Your task to perform on an android device: turn off picture-in-picture Image 0: 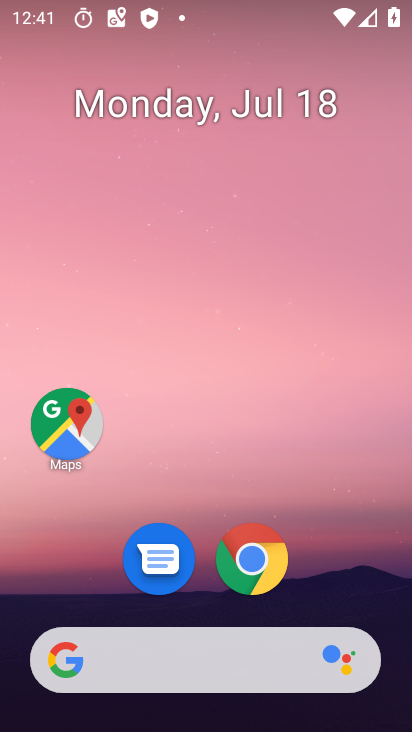
Step 0: drag from (193, 601) to (271, 7)
Your task to perform on an android device: turn off picture-in-picture Image 1: 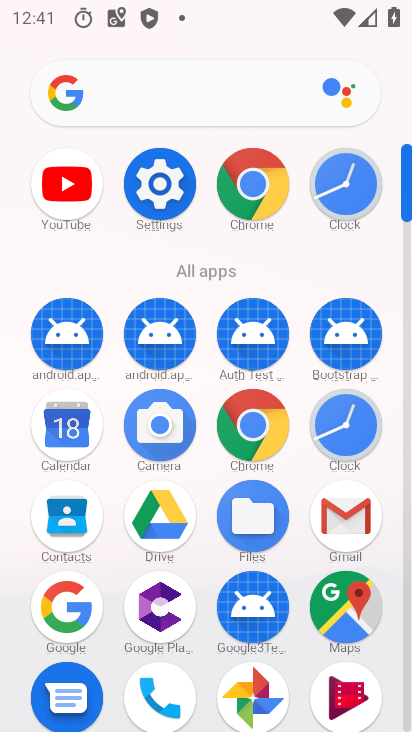
Step 1: click (174, 180)
Your task to perform on an android device: turn off picture-in-picture Image 2: 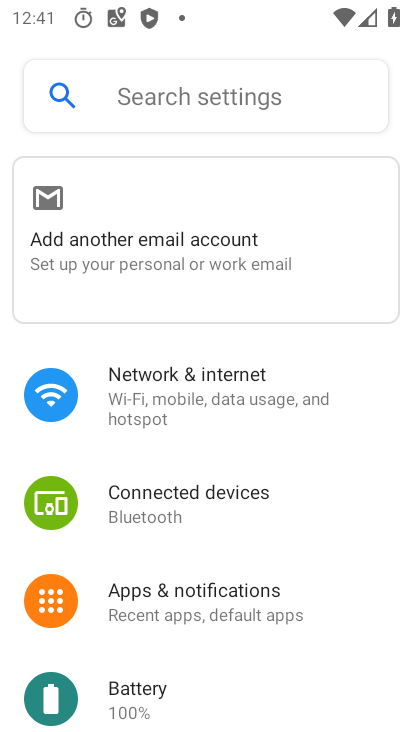
Step 2: drag from (233, 652) to (270, 448)
Your task to perform on an android device: turn off picture-in-picture Image 3: 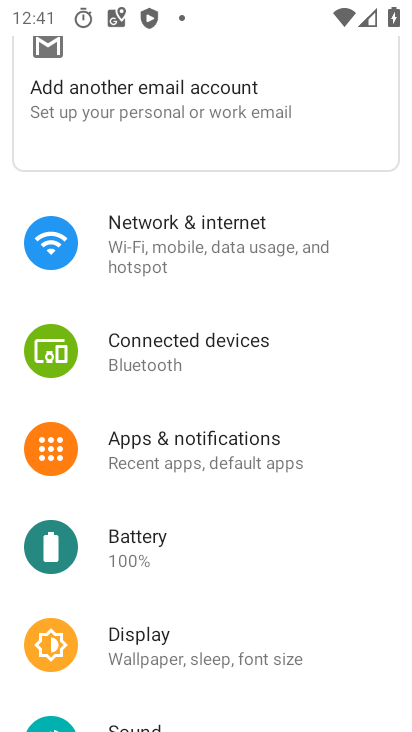
Step 3: click (233, 456)
Your task to perform on an android device: turn off picture-in-picture Image 4: 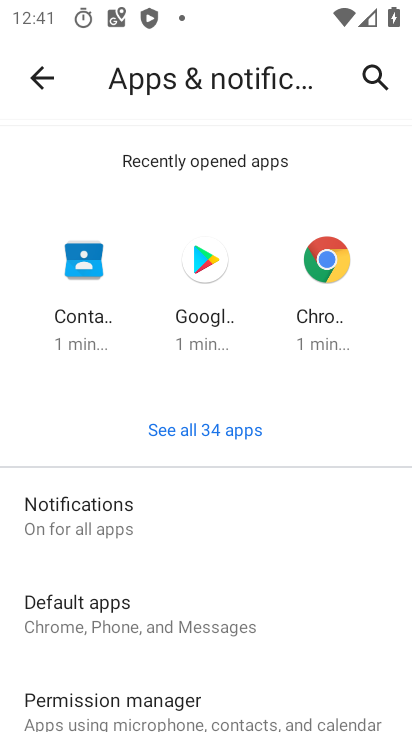
Step 4: drag from (205, 688) to (224, 395)
Your task to perform on an android device: turn off picture-in-picture Image 5: 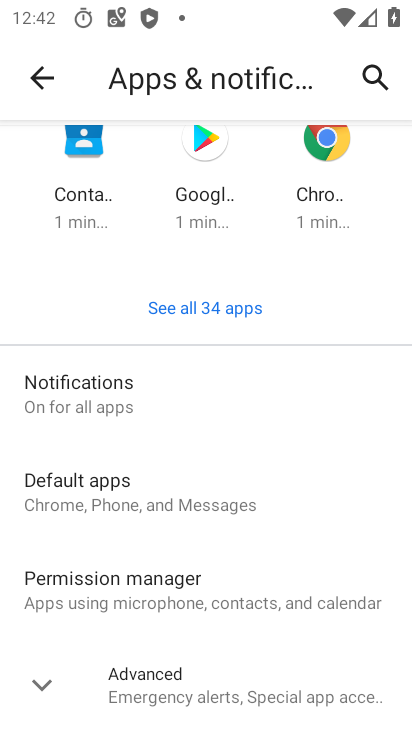
Step 5: click (126, 388)
Your task to perform on an android device: turn off picture-in-picture Image 6: 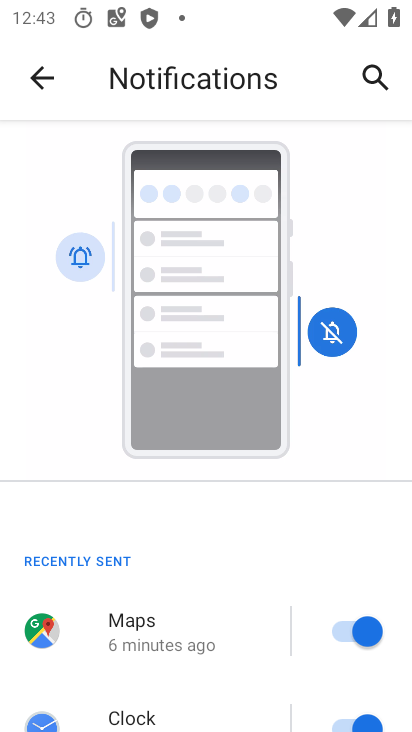
Step 6: drag from (210, 662) to (229, 46)
Your task to perform on an android device: turn off picture-in-picture Image 7: 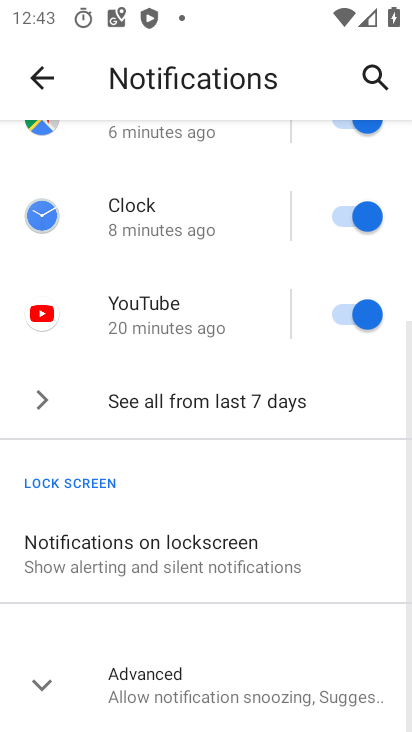
Step 7: drag from (201, 575) to (230, 40)
Your task to perform on an android device: turn off picture-in-picture Image 8: 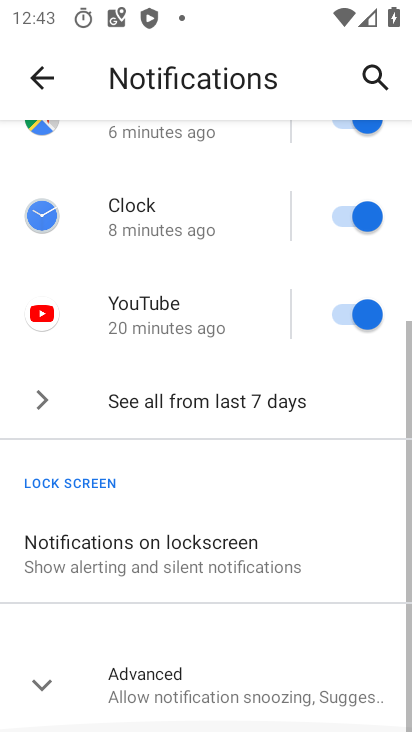
Step 8: click (188, 695)
Your task to perform on an android device: turn off picture-in-picture Image 9: 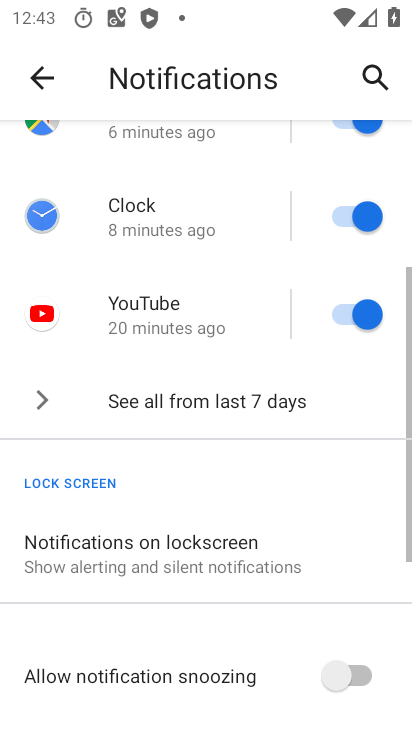
Step 9: drag from (197, 670) to (262, 47)
Your task to perform on an android device: turn off picture-in-picture Image 10: 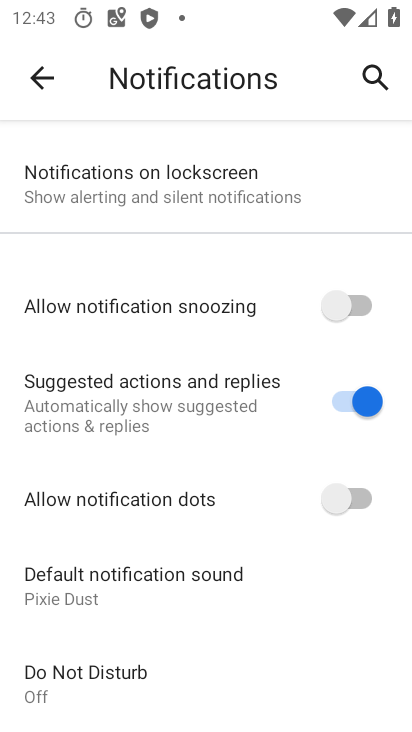
Step 10: drag from (218, 295) to (213, 114)
Your task to perform on an android device: turn off picture-in-picture Image 11: 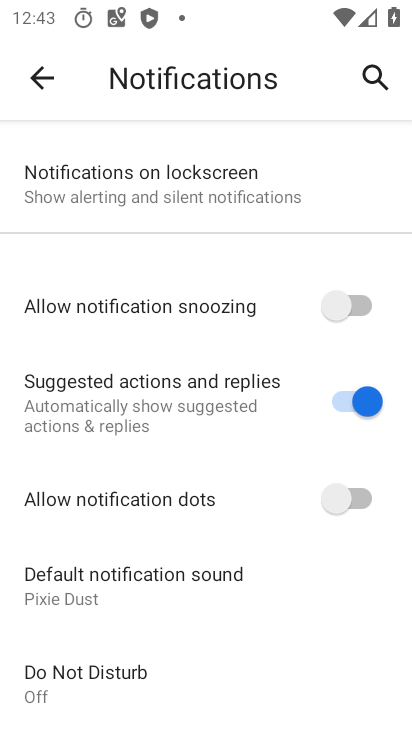
Step 11: drag from (177, 367) to (219, 56)
Your task to perform on an android device: turn off picture-in-picture Image 12: 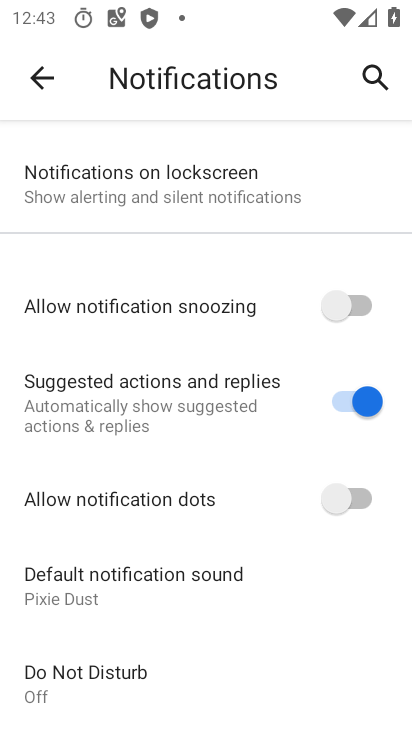
Step 12: click (36, 53)
Your task to perform on an android device: turn off picture-in-picture Image 13: 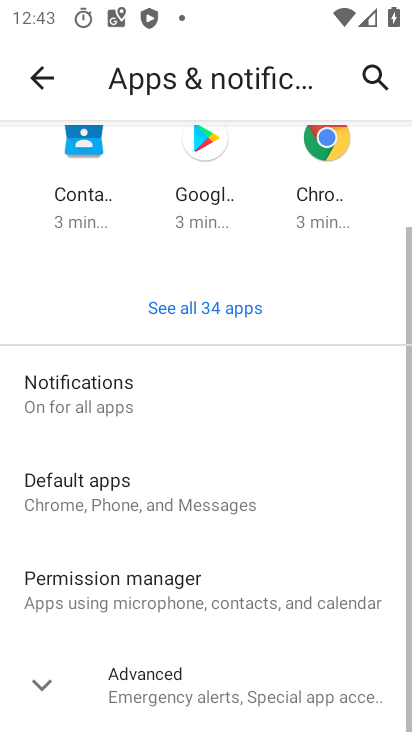
Step 13: drag from (167, 617) to (318, 32)
Your task to perform on an android device: turn off picture-in-picture Image 14: 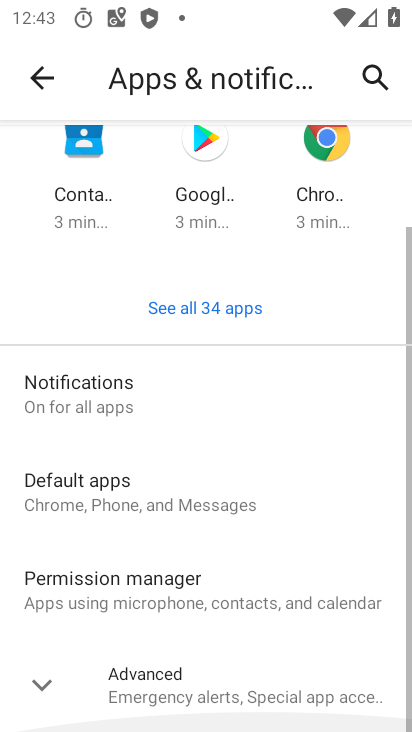
Step 14: click (169, 687)
Your task to perform on an android device: turn off picture-in-picture Image 15: 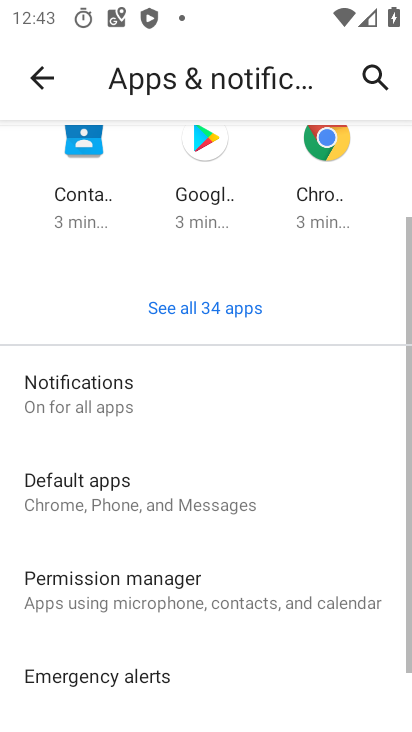
Step 15: drag from (172, 667) to (236, 63)
Your task to perform on an android device: turn off picture-in-picture Image 16: 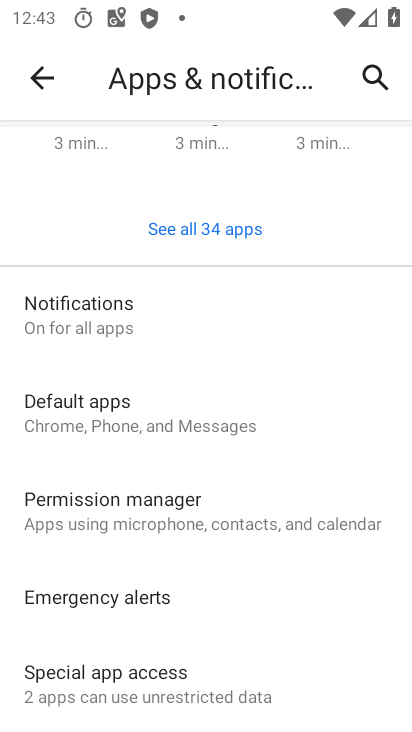
Step 16: click (72, 662)
Your task to perform on an android device: turn off picture-in-picture Image 17: 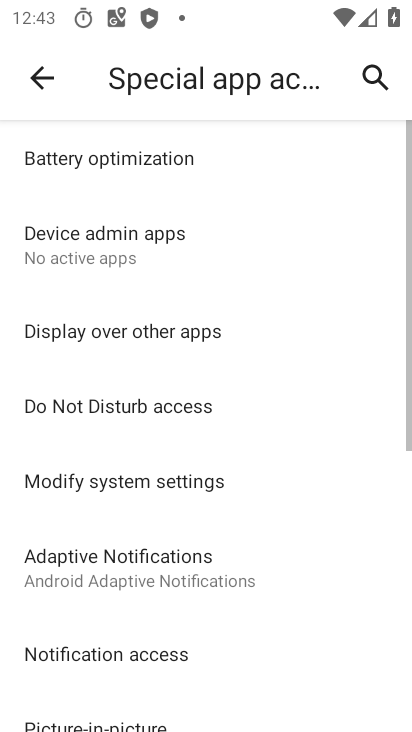
Step 17: drag from (100, 631) to (203, 94)
Your task to perform on an android device: turn off picture-in-picture Image 18: 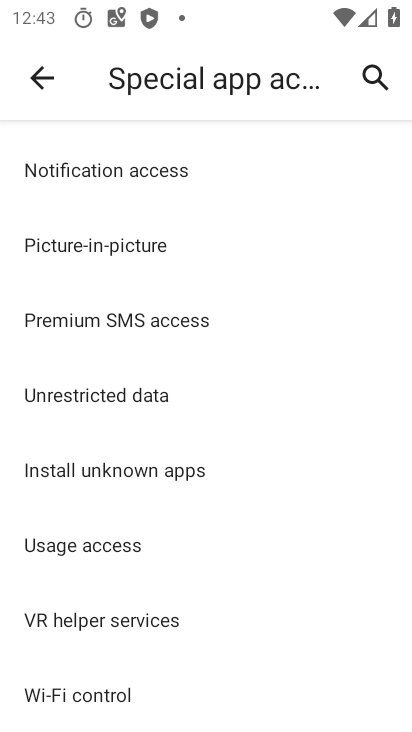
Step 18: click (70, 248)
Your task to perform on an android device: turn off picture-in-picture Image 19: 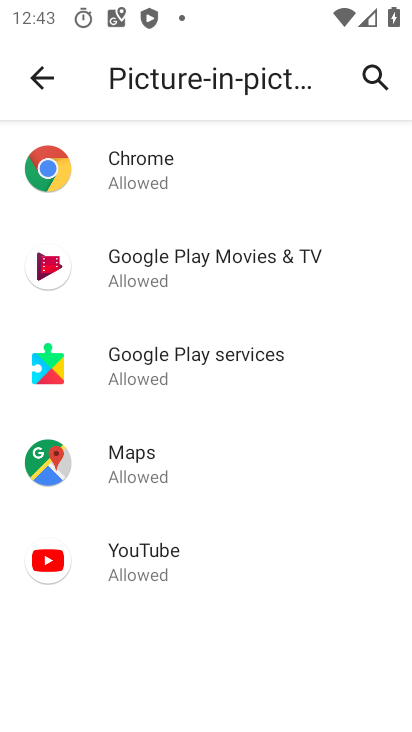
Step 19: click (163, 165)
Your task to perform on an android device: turn off picture-in-picture Image 20: 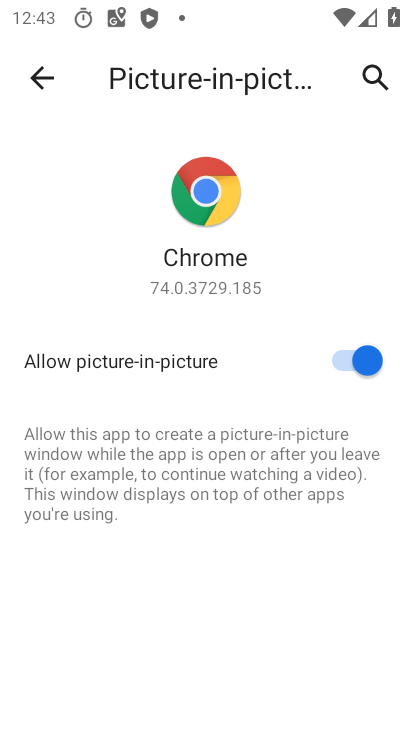
Step 20: click (368, 366)
Your task to perform on an android device: turn off picture-in-picture Image 21: 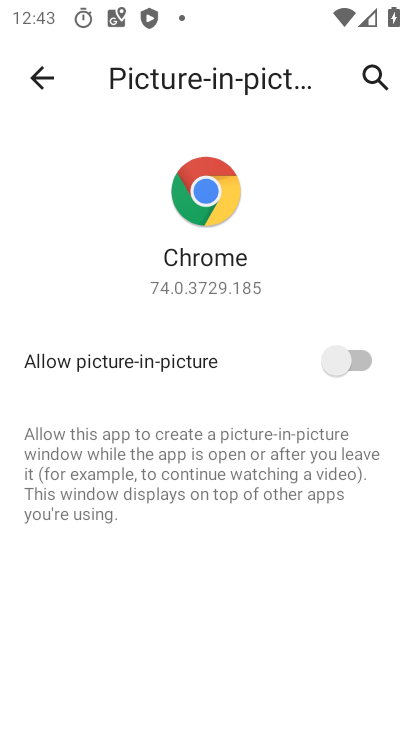
Step 21: task complete